Your task to perform on an android device: Open Google Chrome and open the bookmarks view Image 0: 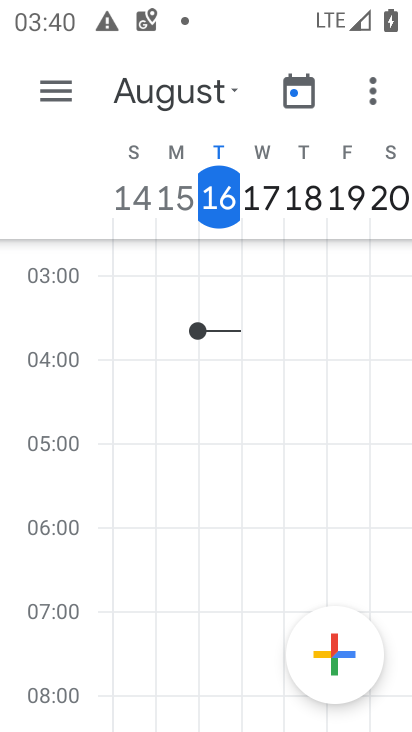
Step 0: press home button
Your task to perform on an android device: Open Google Chrome and open the bookmarks view Image 1: 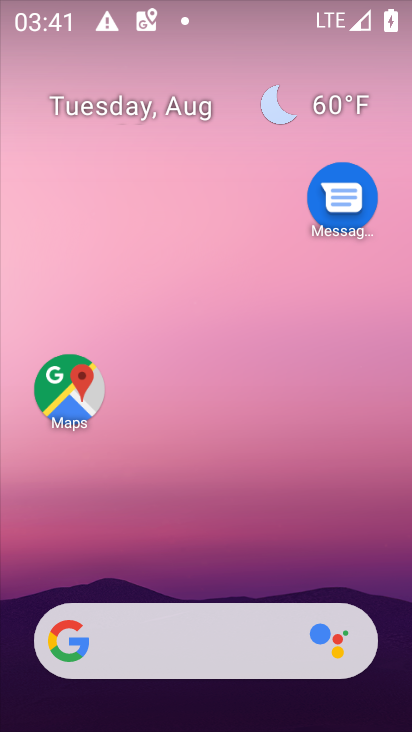
Step 1: drag from (204, 576) to (161, 113)
Your task to perform on an android device: Open Google Chrome and open the bookmarks view Image 2: 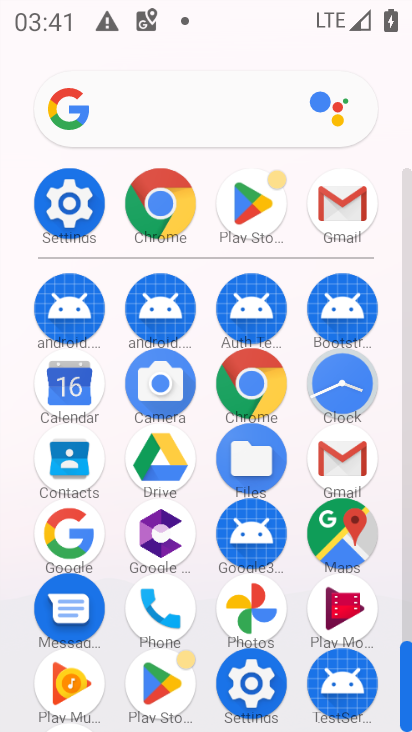
Step 2: click (171, 195)
Your task to perform on an android device: Open Google Chrome and open the bookmarks view Image 3: 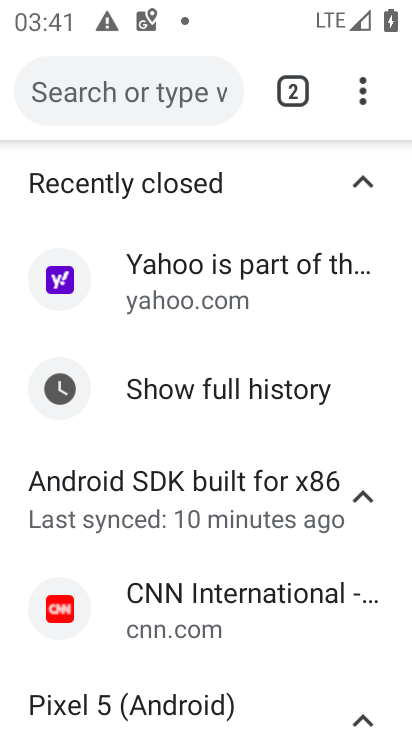
Step 3: click (360, 99)
Your task to perform on an android device: Open Google Chrome and open the bookmarks view Image 4: 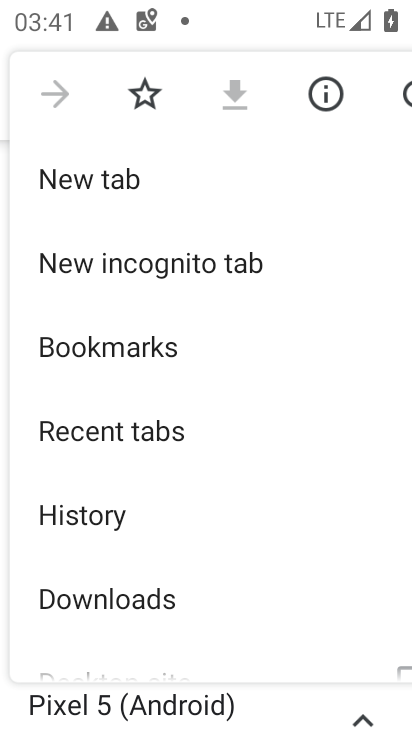
Step 4: click (89, 356)
Your task to perform on an android device: Open Google Chrome and open the bookmarks view Image 5: 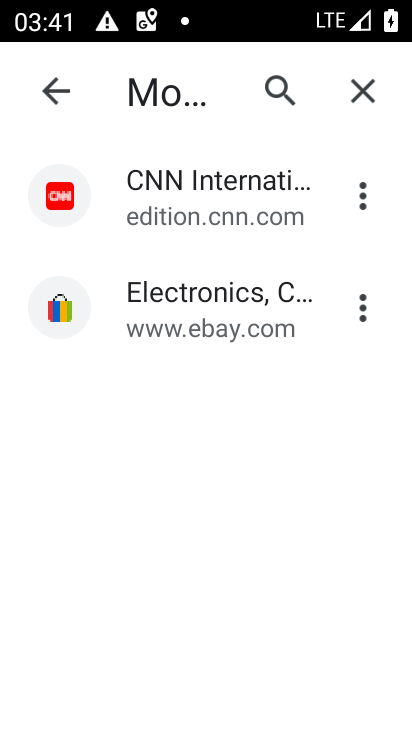
Step 5: task complete